Your task to perform on an android device: turn on priority inbox in the gmail app Image 0: 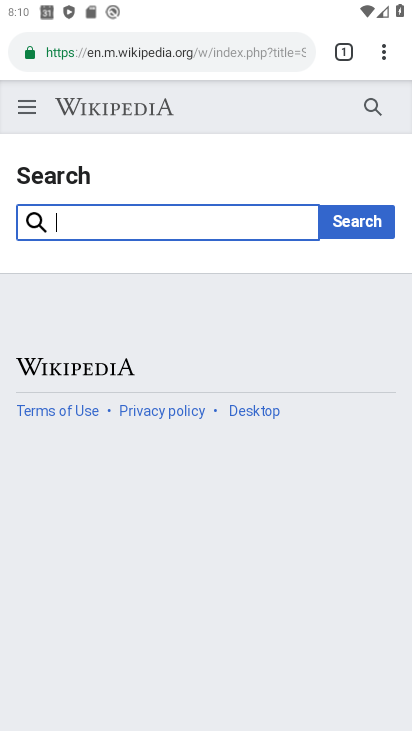
Step 0: press home button
Your task to perform on an android device: turn on priority inbox in the gmail app Image 1: 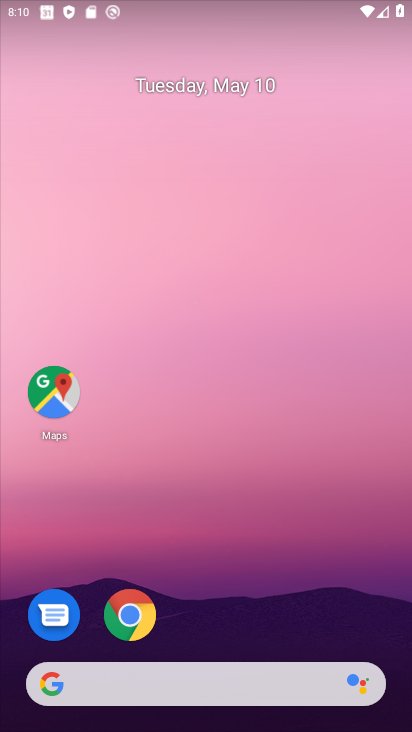
Step 1: drag from (182, 636) to (238, 22)
Your task to perform on an android device: turn on priority inbox in the gmail app Image 2: 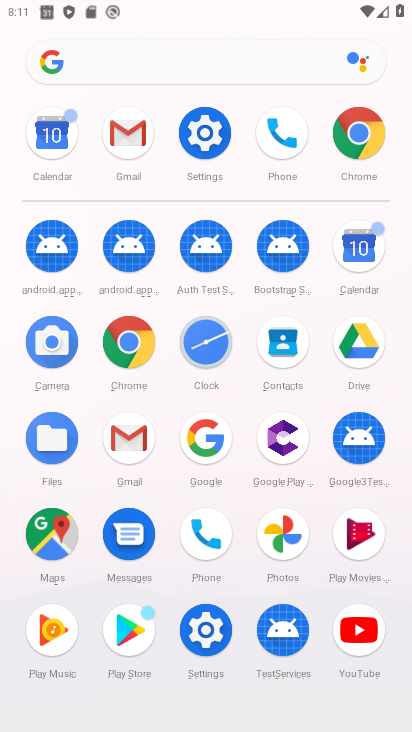
Step 2: click (147, 429)
Your task to perform on an android device: turn on priority inbox in the gmail app Image 3: 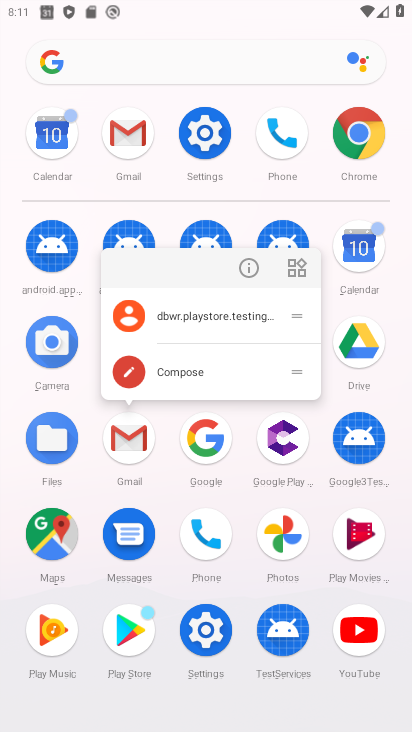
Step 3: click (244, 279)
Your task to perform on an android device: turn on priority inbox in the gmail app Image 4: 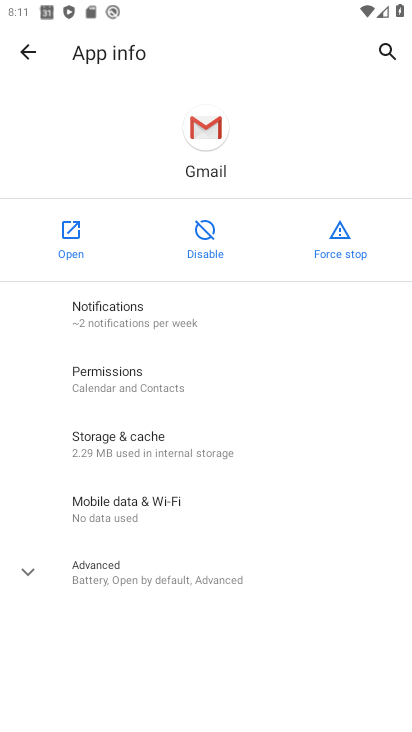
Step 4: click (59, 229)
Your task to perform on an android device: turn on priority inbox in the gmail app Image 5: 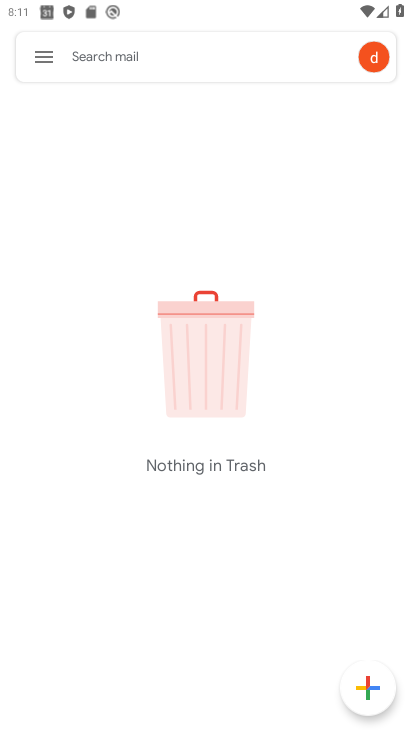
Step 5: click (40, 58)
Your task to perform on an android device: turn on priority inbox in the gmail app Image 6: 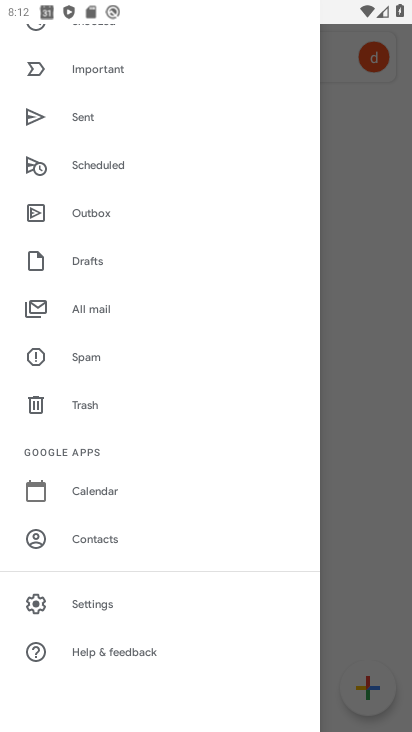
Step 6: click (94, 607)
Your task to perform on an android device: turn on priority inbox in the gmail app Image 7: 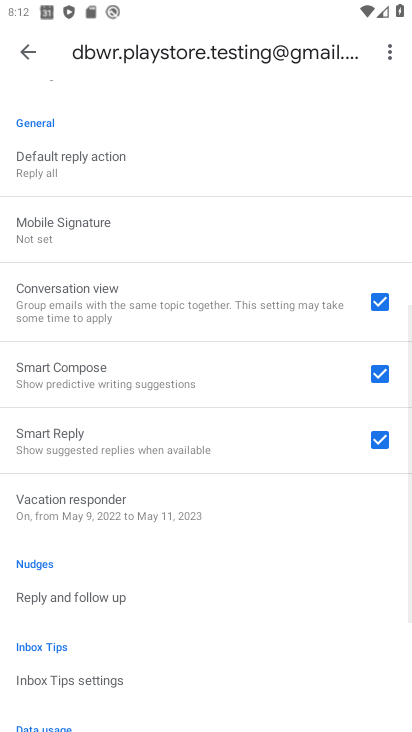
Step 7: drag from (109, 186) to (150, 602)
Your task to perform on an android device: turn on priority inbox in the gmail app Image 8: 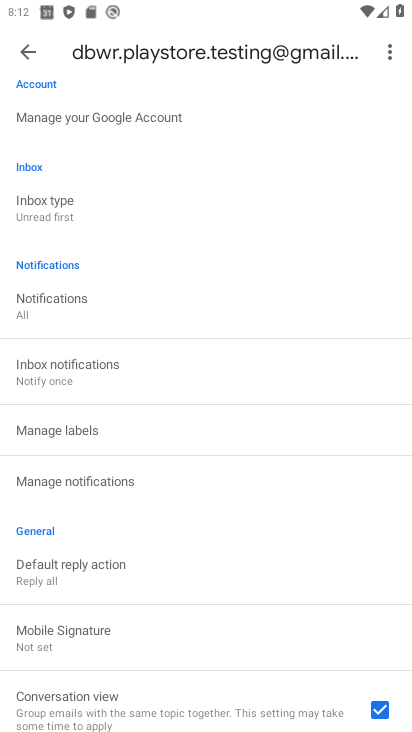
Step 8: drag from (163, 214) to (261, 705)
Your task to perform on an android device: turn on priority inbox in the gmail app Image 9: 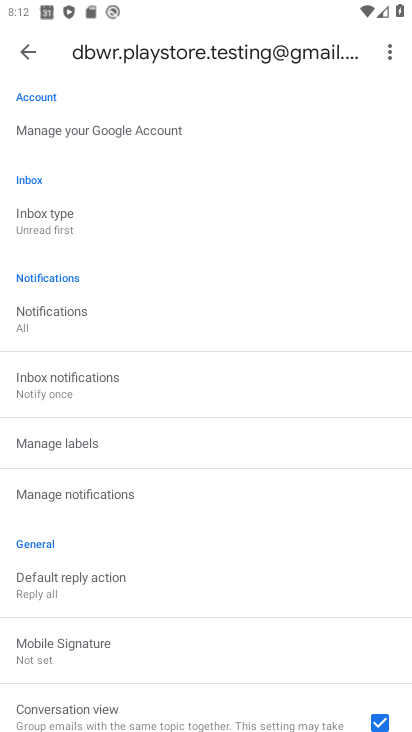
Step 9: click (83, 211)
Your task to perform on an android device: turn on priority inbox in the gmail app Image 10: 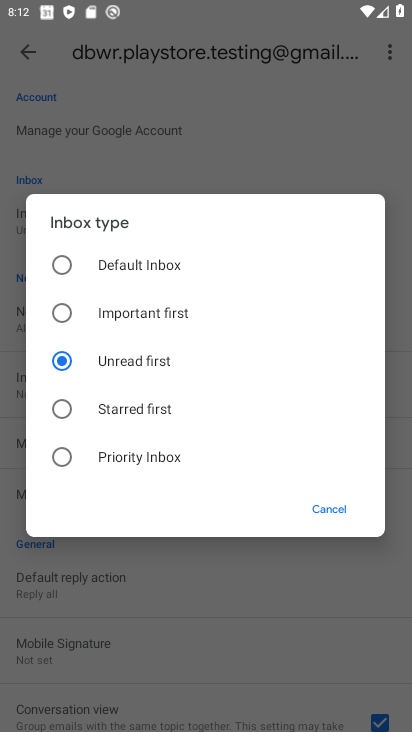
Step 10: click (90, 461)
Your task to perform on an android device: turn on priority inbox in the gmail app Image 11: 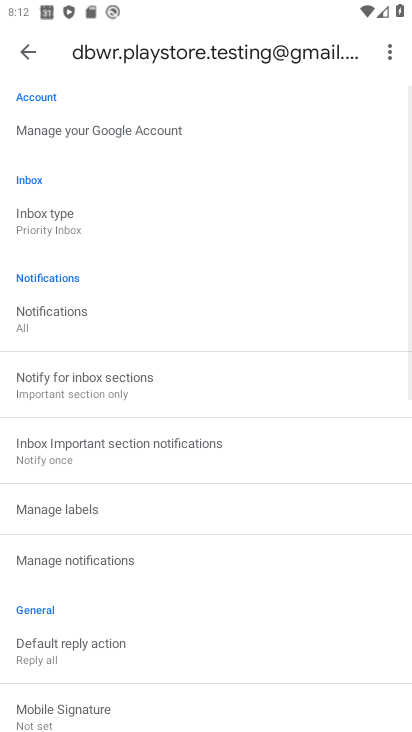
Step 11: task complete